Your task to perform on an android device: turn off smart reply in the gmail app Image 0: 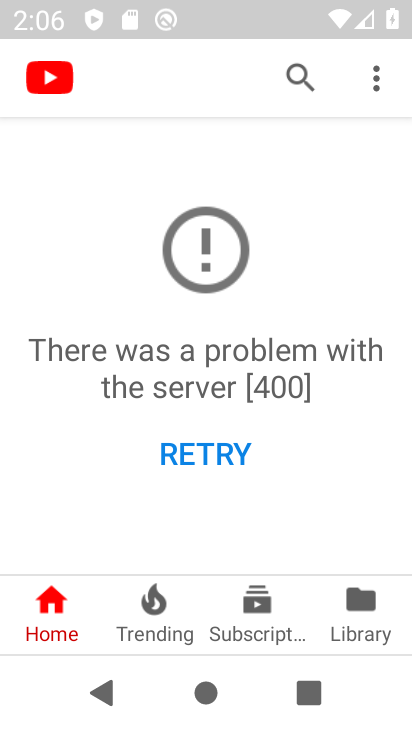
Step 0: press home button
Your task to perform on an android device: turn off smart reply in the gmail app Image 1: 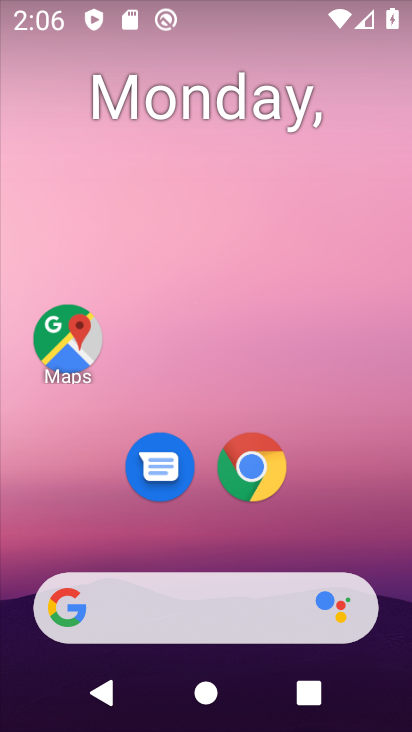
Step 1: drag from (334, 534) to (278, 74)
Your task to perform on an android device: turn off smart reply in the gmail app Image 2: 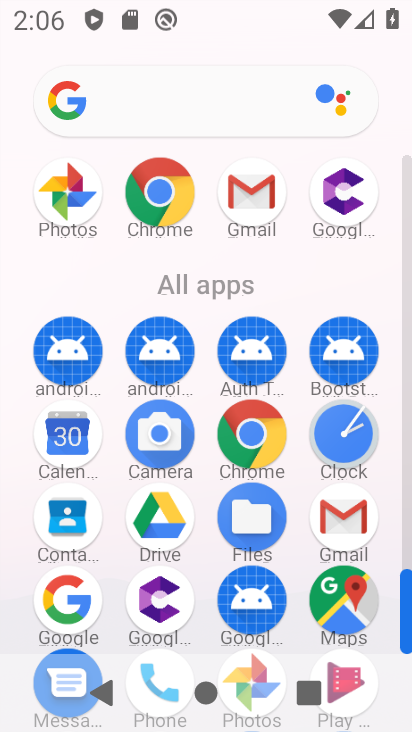
Step 2: click (246, 185)
Your task to perform on an android device: turn off smart reply in the gmail app Image 3: 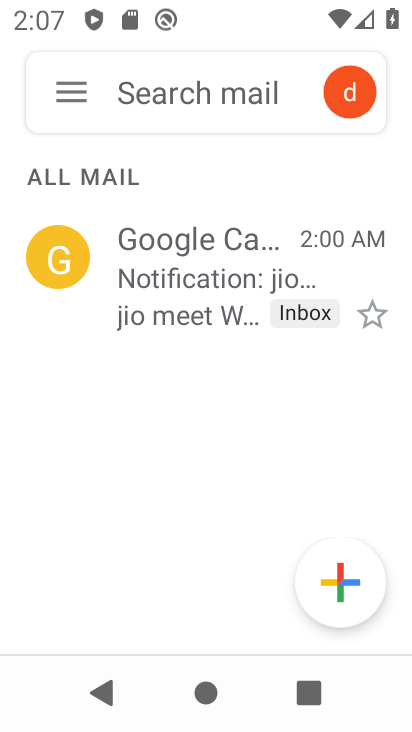
Step 3: click (68, 96)
Your task to perform on an android device: turn off smart reply in the gmail app Image 4: 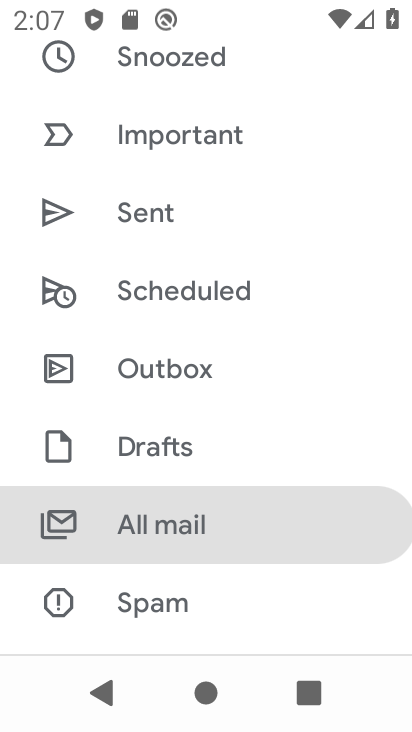
Step 4: drag from (196, 582) to (229, 158)
Your task to perform on an android device: turn off smart reply in the gmail app Image 5: 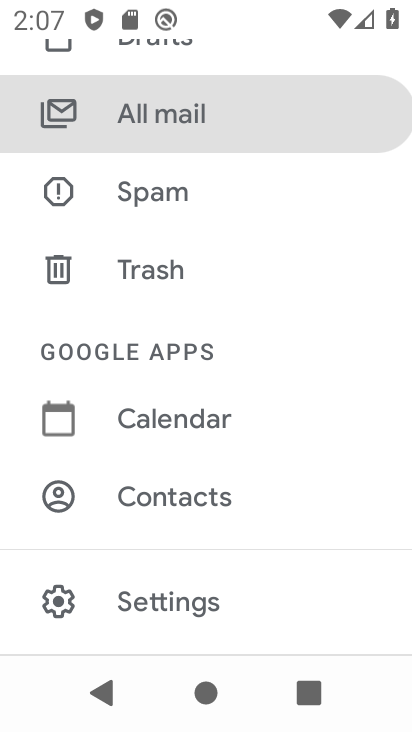
Step 5: click (205, 604)
Your task to perform on an android device: turn off smart reply in the gmail app Image 6: 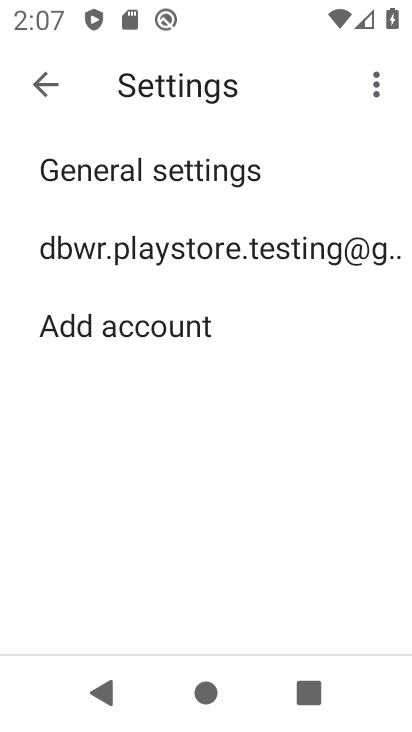
Step 6: click (287, 262)
Your task to perform on an android device: turn off smart reply in the gmail app Image 7: 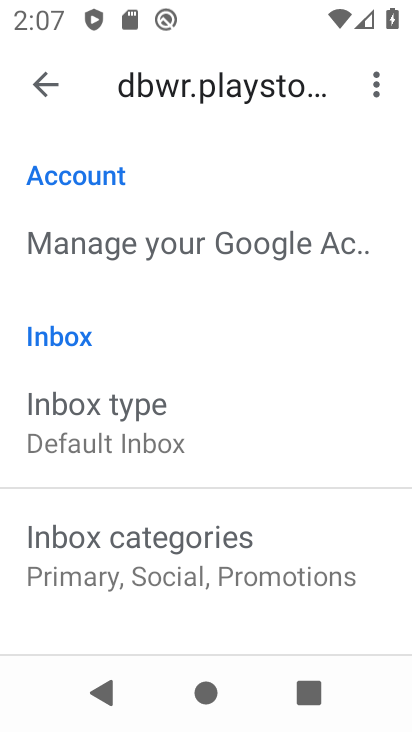
Step 7: drag from (220, 547) to (259, 106)
Your task to perform on an android device: turn off smart reply in the gmail app Image 8: 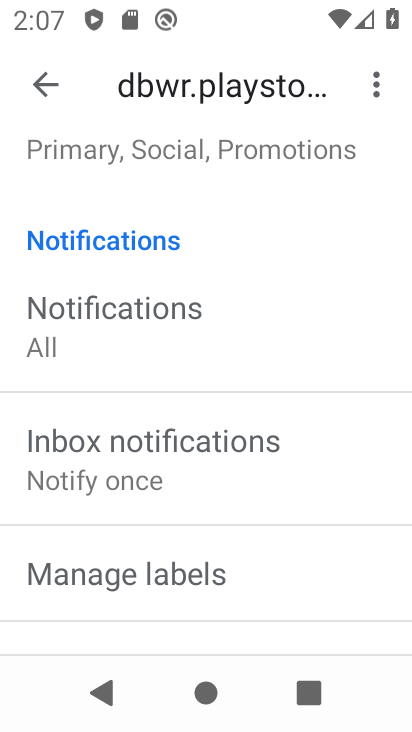
Step 8: drag from (196, 599) to (203, 466)
Your task to perform on an android device: turn off smart reply in the gmail app Image 9: 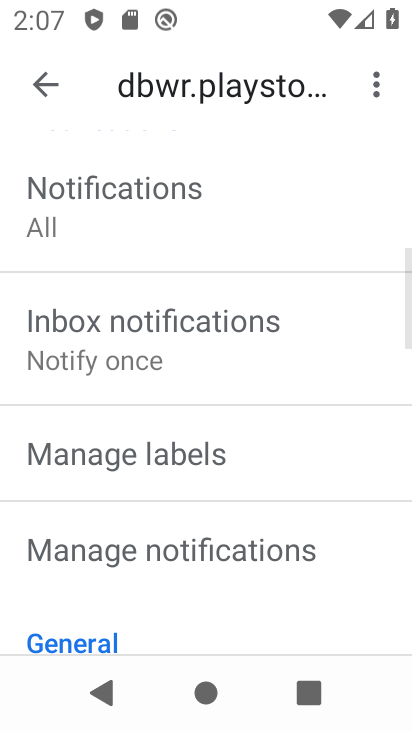
Step 9: drag from (193, 520) to (203, 156)
Your task to perform on an android device: turn off smart reply in the gmail app Image 10: 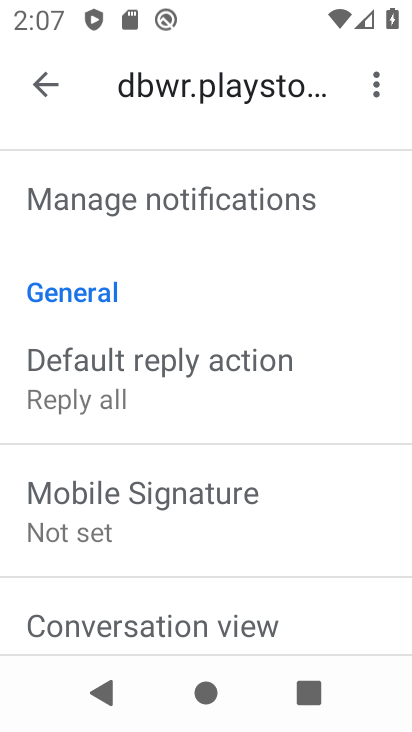
Step 10: drag from (188, 586) to (197, 322)
Your task to perform on an android device: turn off smart reply in the gmail app Image 11: 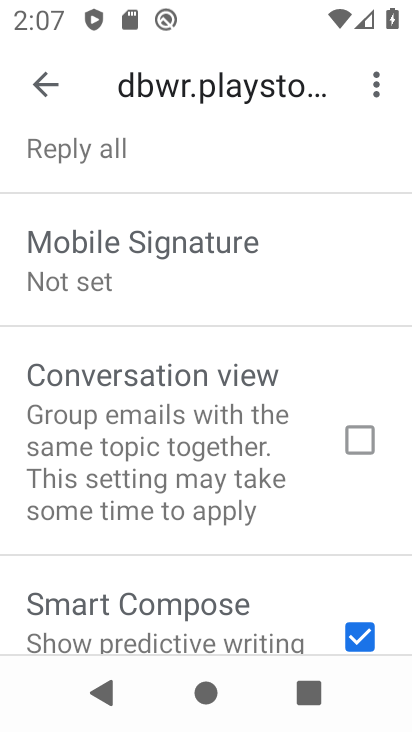
Step 11: drag from (242, 662) to (249, 318)
Your task to perform on an android device: turn off smart reply in the gmail app Image 12: 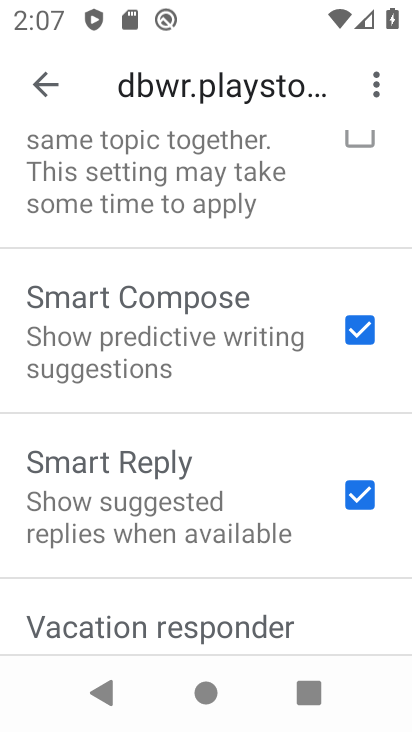
Step 12: click (369, 498)
Your task to perform on an android device: turn off smart reply in the gmail app Image 13: 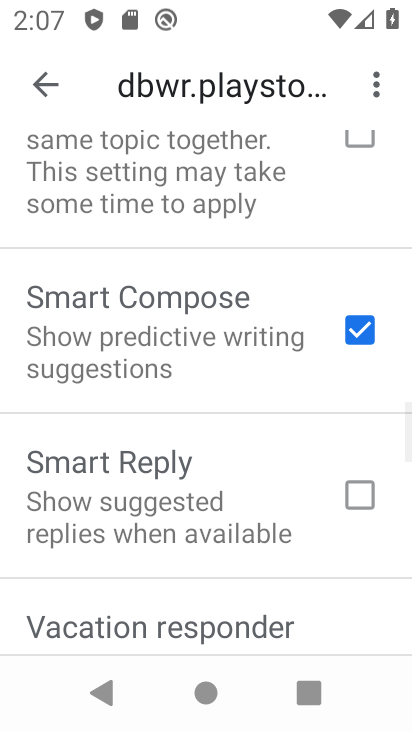
Step 13: task complete